Your task to perform on an android device: toggle wifi Image 0: 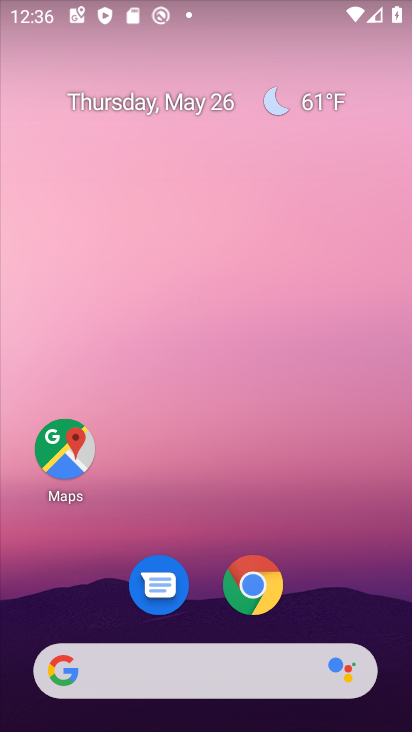
Step 0: drag from (227, 513) to (259, 18)
Your task to perform on an android device: toggle wifi Image 1: 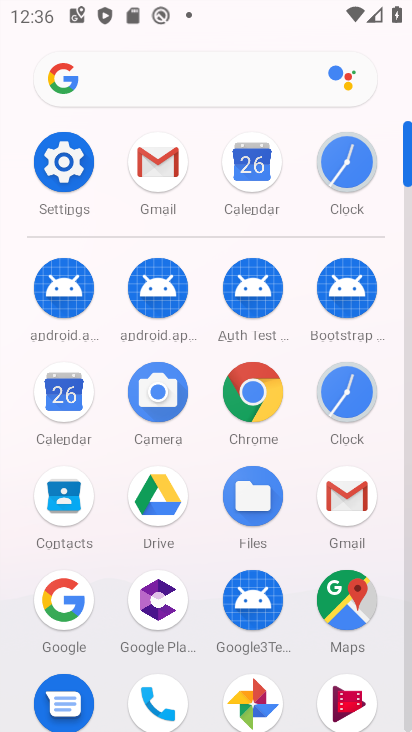
Step 1: click (66, 164)
Your task to perform on an android device: toggle wifi Image 2: 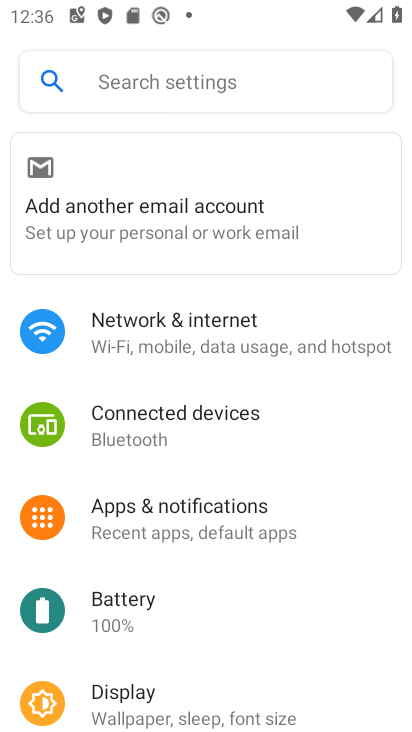
Step 2: click (166, 319)
Your task to perform on an android device: toggle wifi Image 3: 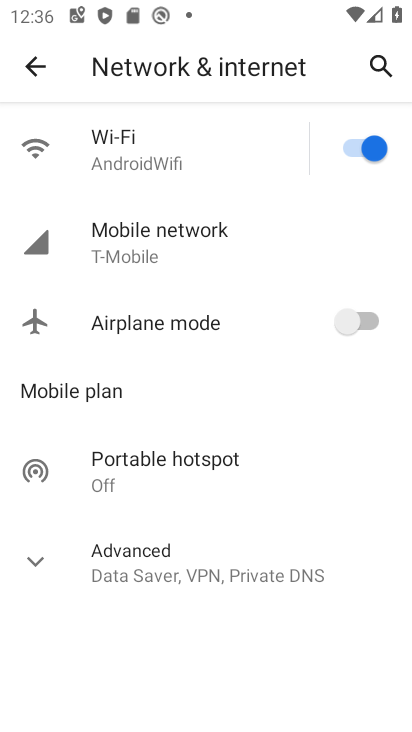
Step 3: click (363, 136)
Your task to perform on an android device: toggle wifi Image 4: 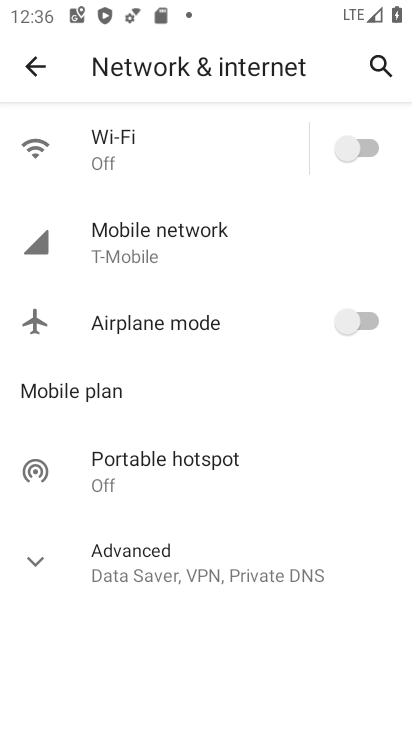
Step 4: task complete